Your task to perform on an android device: toggle priority inbox in the gmail app Image 0: 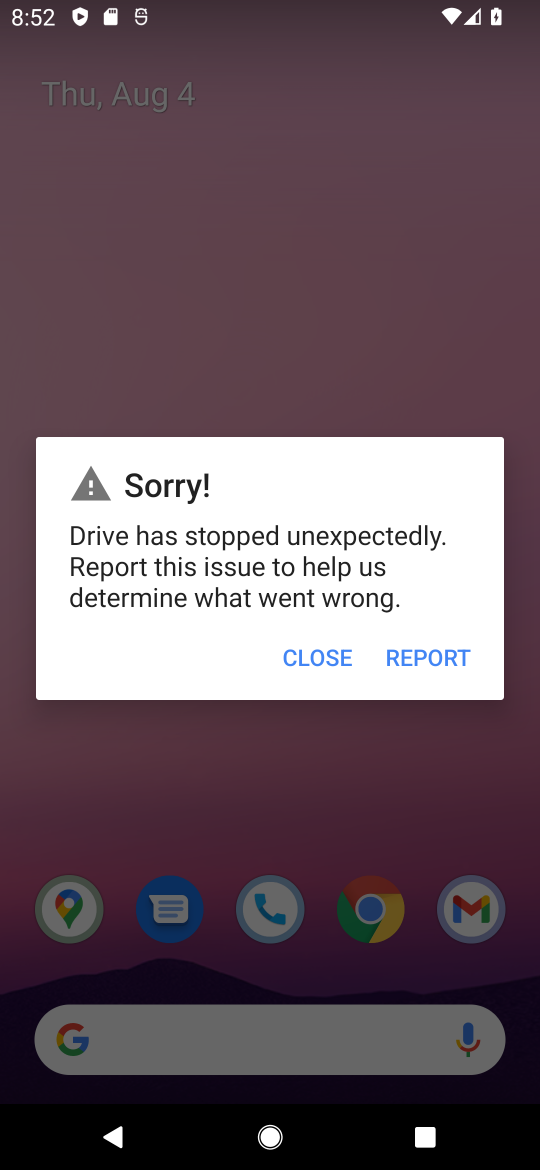
Step 0: press home button
Your task to perform on an android device: toggle priority inbox in the gmail app Image 1: 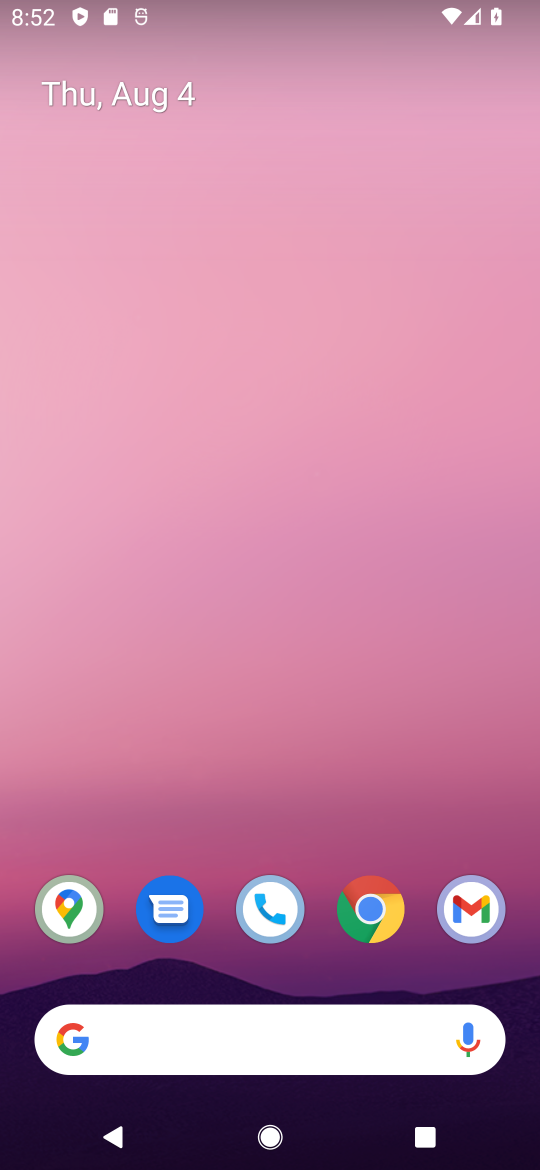
Step 1: drag from (308, 835) to (331, 373)
Your task to perform on an android device: toggle priority inbox in the gmail app Image 2: 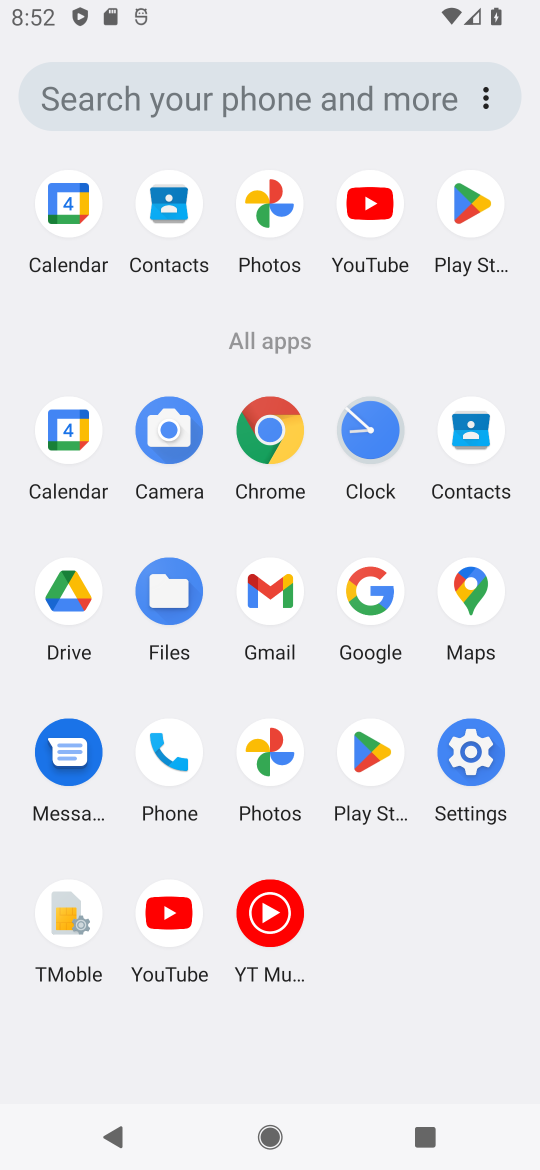
Step 2: click (267, 600)
Your task to perform on an android device: toggle priority inbox in the gmail app Image 3: 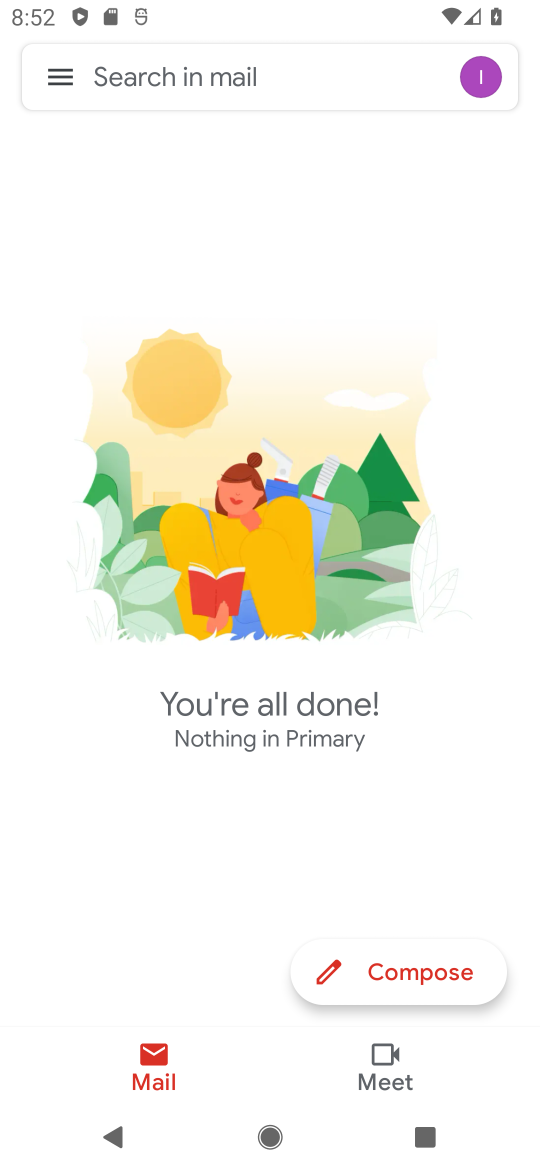
Step 3: click (60, 63)
Your task to perform on an android device: toggle priority inbox in the gmail app Image 4: 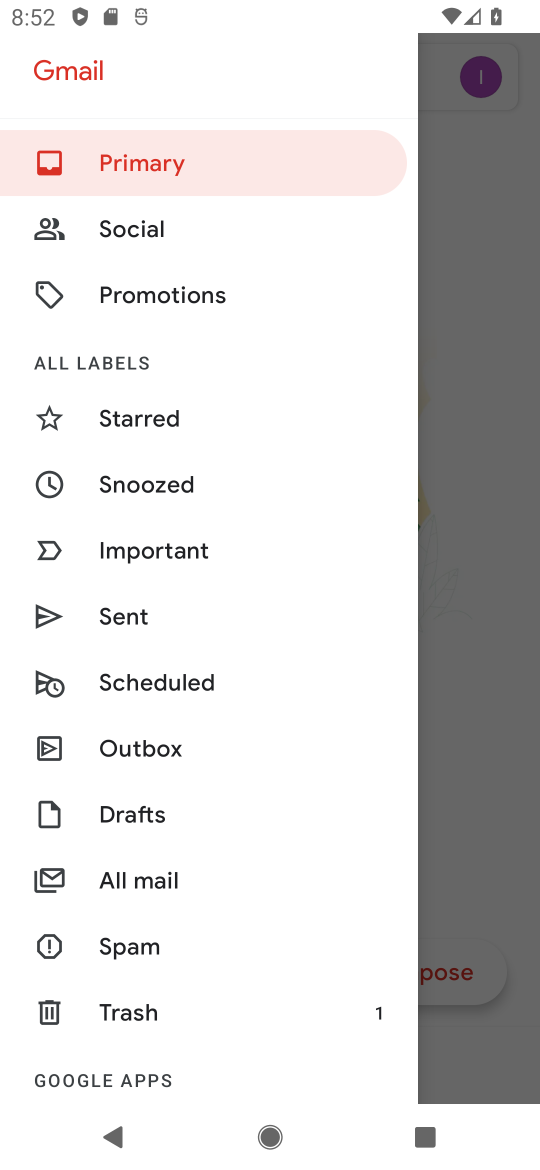
Step 4: drag from (293, 659) to (311, 438)
Your task to perform on an android device: toggle priority inbox in the gmail app Image 5: 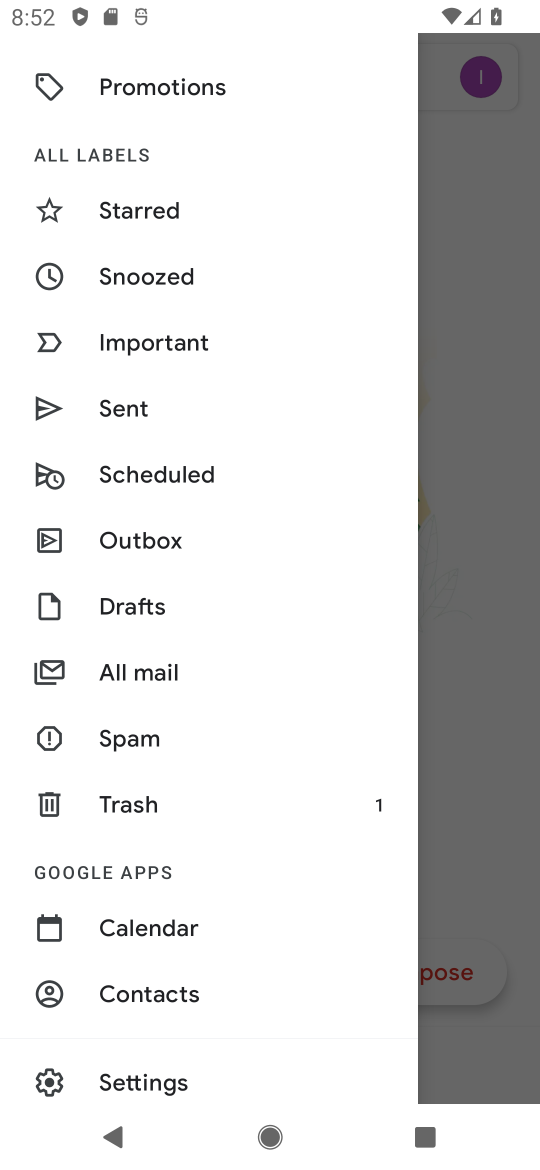
Step 5: drag from (317, 842) to (304, 500)
Your task to perform on an android device: toggle priority inbox in the gmail app Image 6: 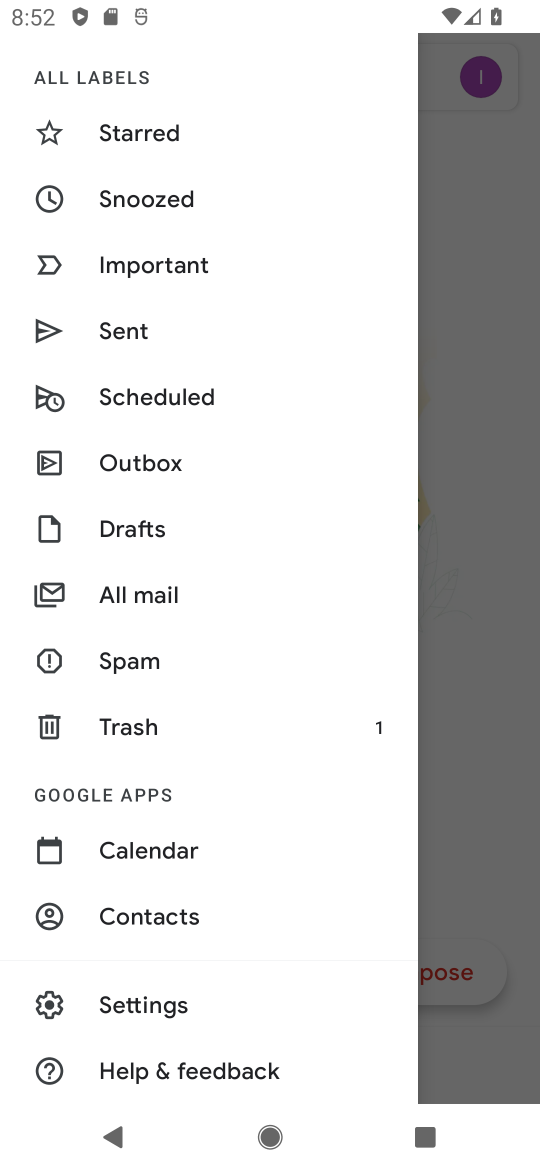
Step 6: click (173, 995)
Your task to perform on an android device: toggle priority inbox in the gmail app Image 7: 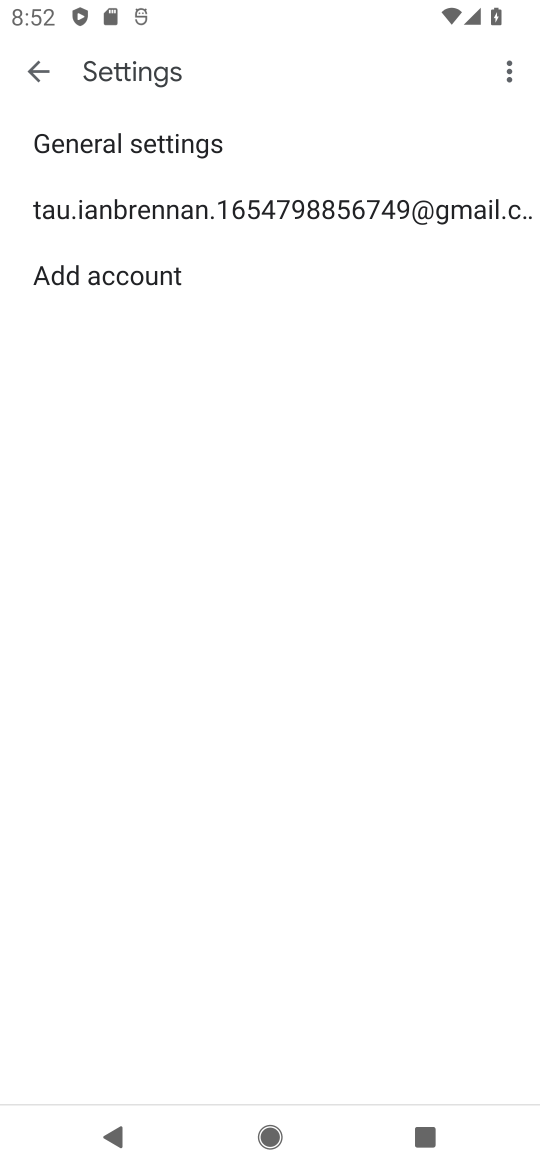
Step 7: click (254, 208)
Your task to perform on an android device: toggle priority inbox in the gmail app Image 8: 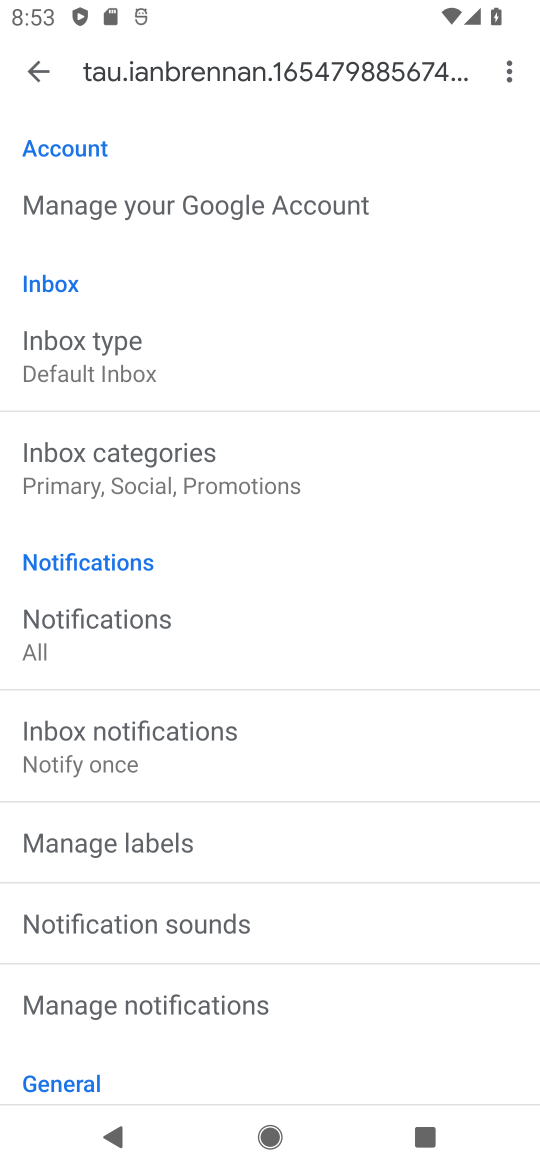
Step 8: click (121, 366)
Your task to perform on an android device: toggle priority inbox in the gmail app Image 9: 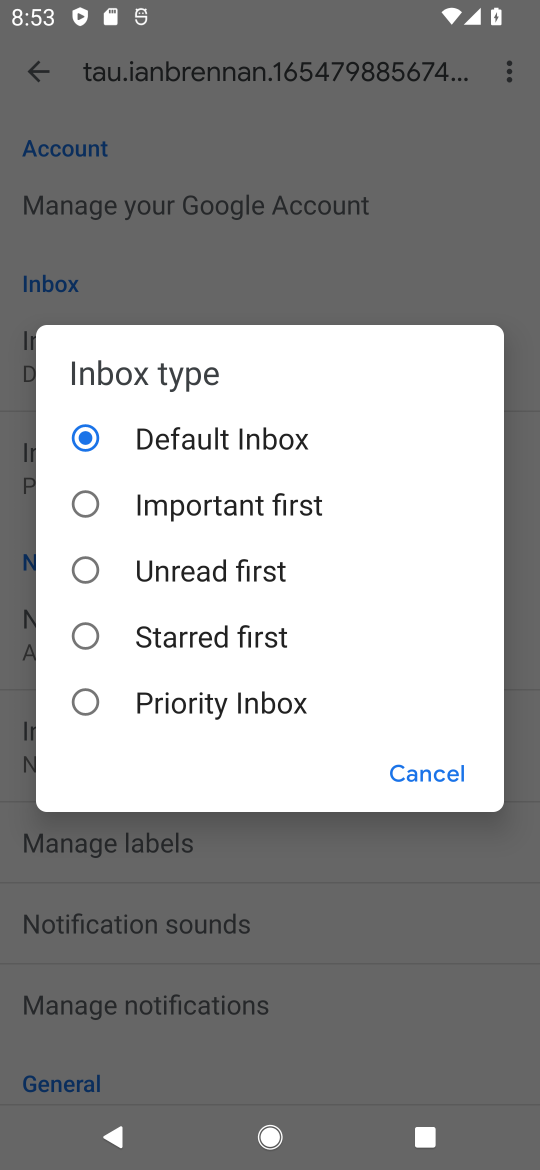
Step 9: click (214, 704)
Your task to perform on an android device: toggle priority inbox in the gmail app Image 10: 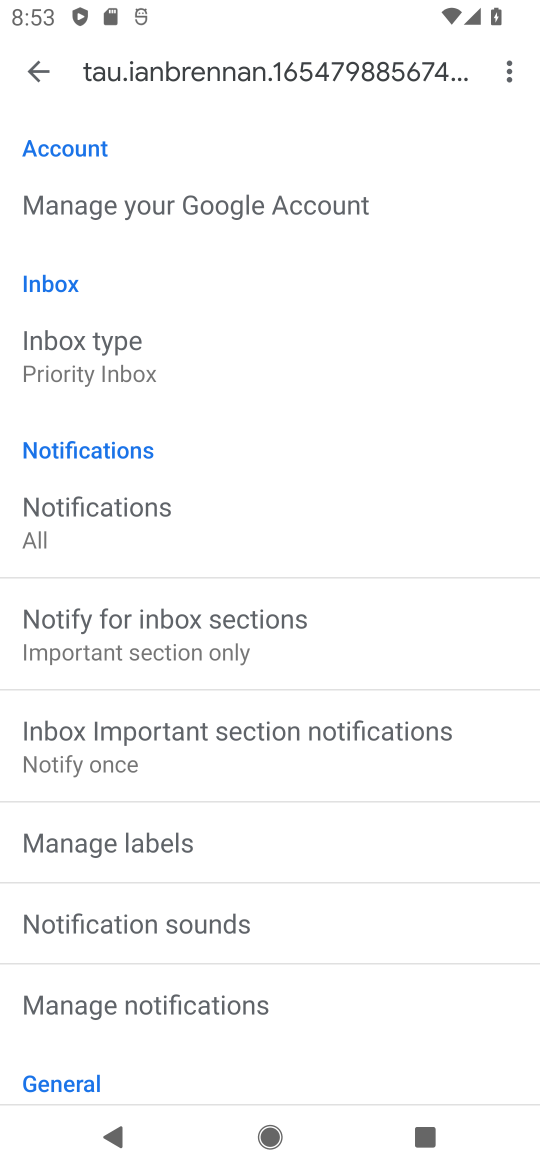
Step 10: task complete